Your task to perform on an android device: toggle data saver in the chrome app Image 0: 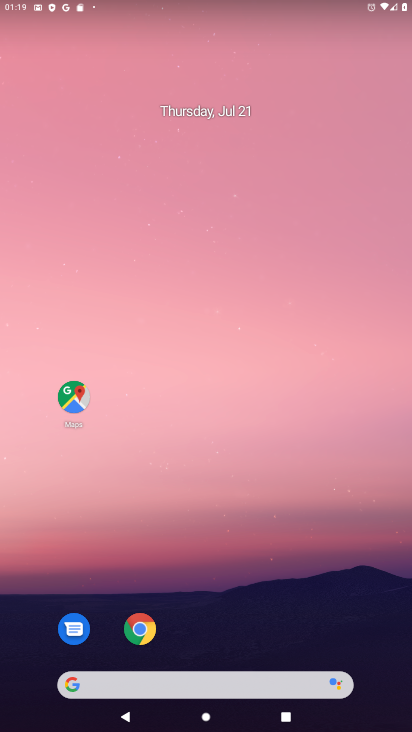
Step 0: drag from (208, 645) to (258, 22)
Your task to perform on an android device: toggle data saver in the chrome app Image 1: 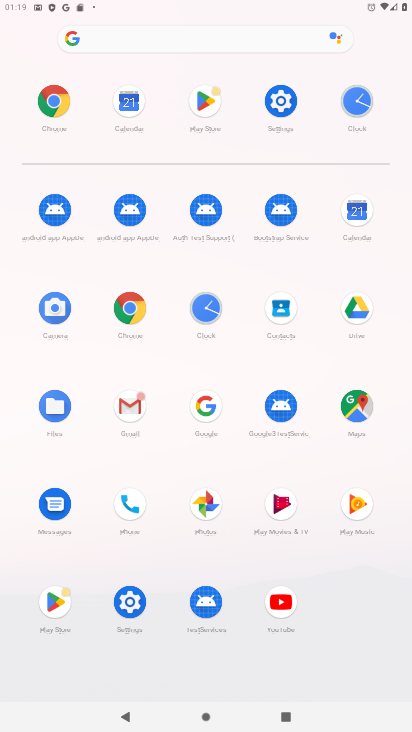
Step 1: click (130, 311)
Your task to perform on an android device: toggle data saver in the chrome app Image 2: 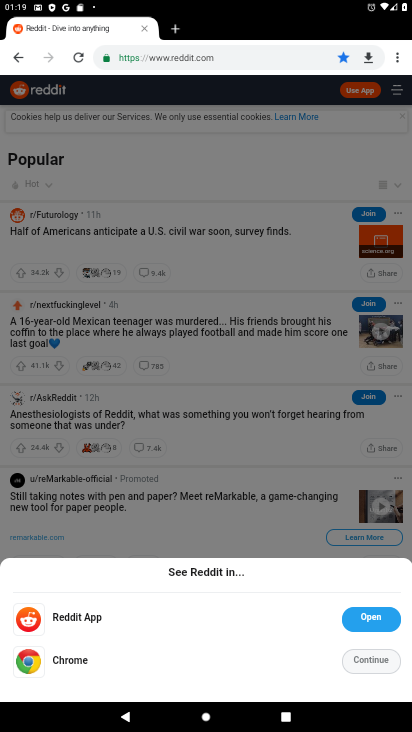
Step 2: click (391, 62)
Your task to perform on an android device: toggle data saver in the chrome app Image 3: 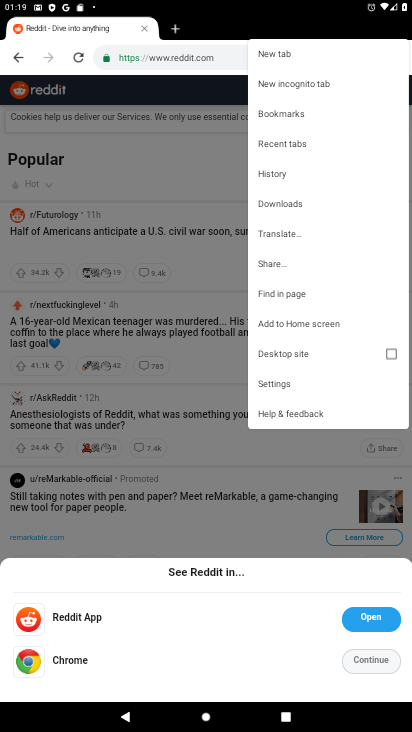
Step 3: click (297, 390)
Your task to perform on an android device: toggle data saver in the chrome app Image 4: 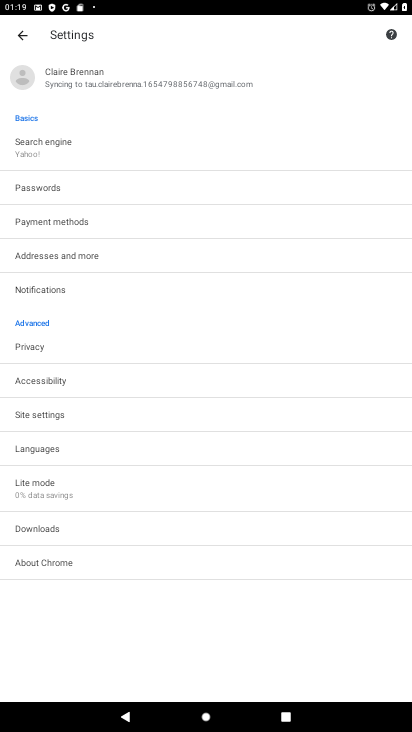
Step 4: click (55, 486)
Your task to perform on an android device: toggle data saver in the chrome app Image 5: 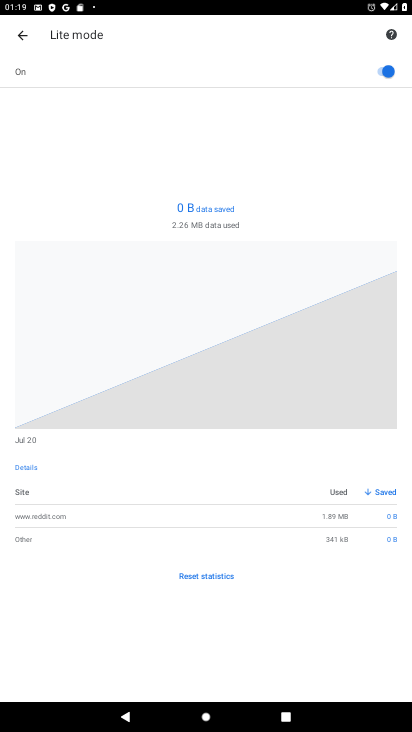
Step 5: click (390, 72)
Your task to perform on an android device: toggle data saver in the chrome app Image 6: 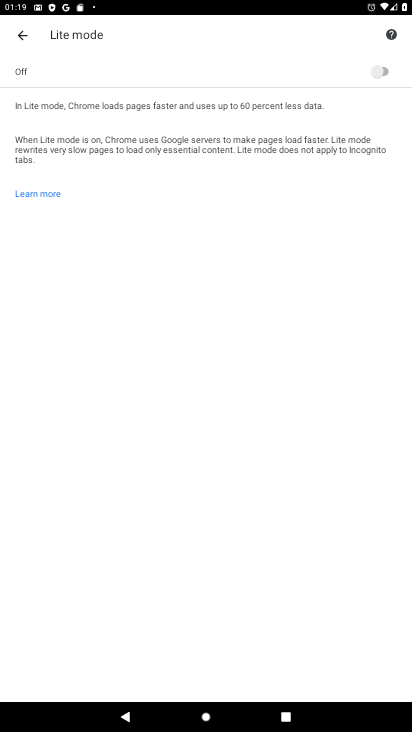
Step 6: task complete